Your task to perform on an android device: turn off sleep mode Image 0: 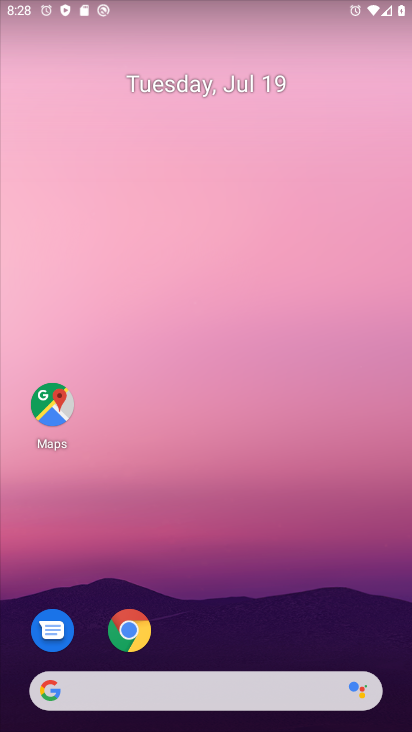
Step 0: drag from (245, 0) to (262, 309)
Your task to perform on an android device: turn off sleep mode Image 1: 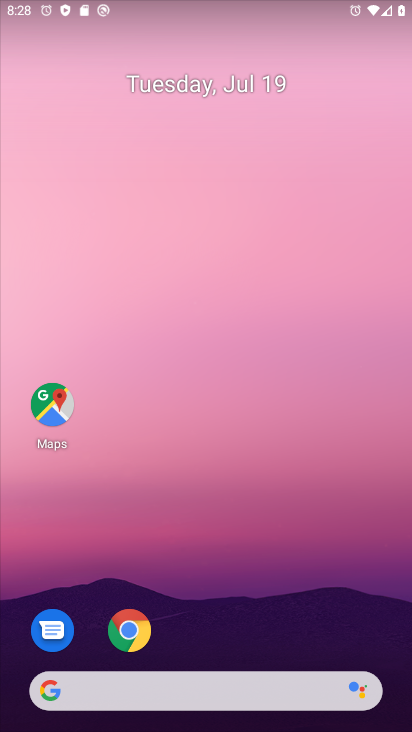
Step 1: task complete